Your task to perform on an android device: What is the news today? Image 0: 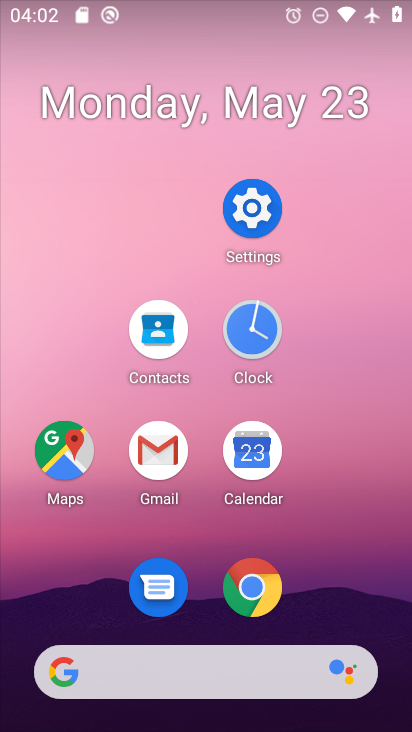
Step 0: click (221, 687)
Your task to perform on an android device: What is the news today? Image 1: 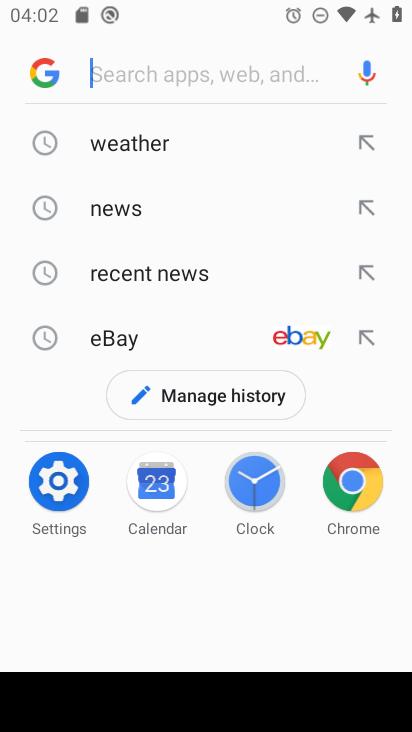
Step 1: click (154, 198)
Your task to perform on an android device: What is the news today? Image 2: 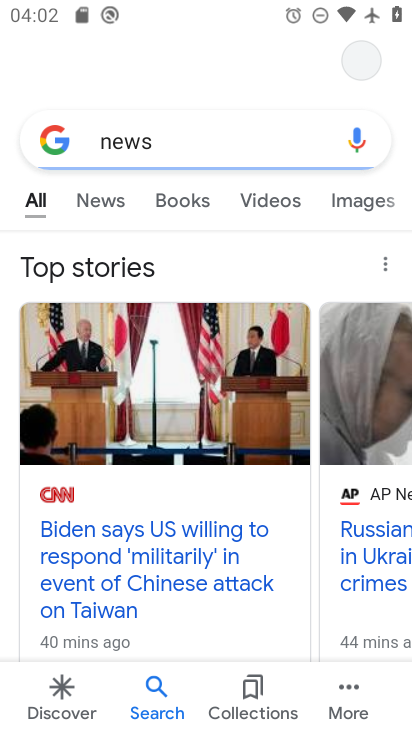
Step 2: task complete